Your task to perform on an android device: Check the weather Image 0: 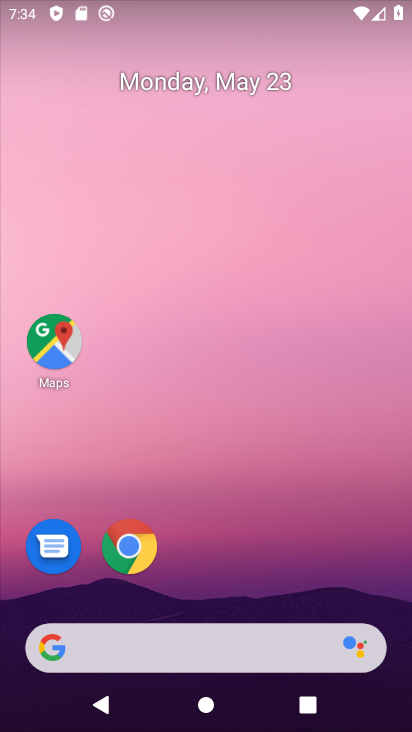
Step 0: click (158, 646)
Your task to perform on an android device: Check the weather Image 1: 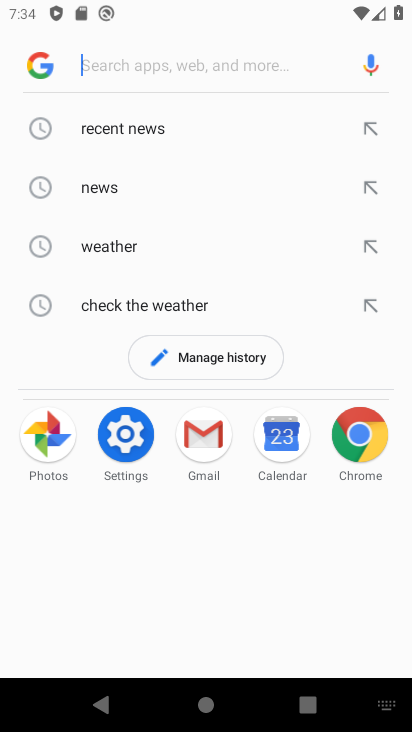
Step 1: click (144, 246)
Your task to perform on an android device: Check the weather Image 2: 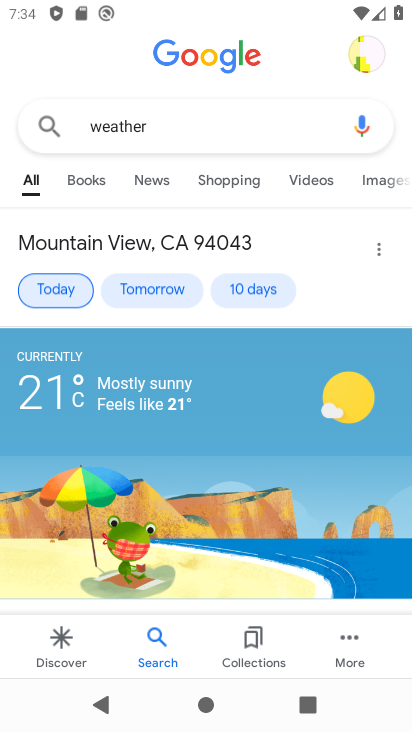
Step 2: task complete